Your task to perform on an android device: Go to ESPN.com Image 0: 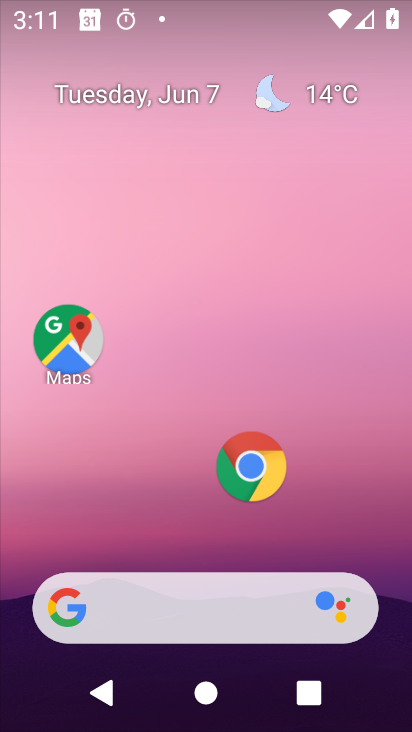
Step 0: click (243, 484)
Your task to perform on an android device: Go to ESPN.com Image 1: 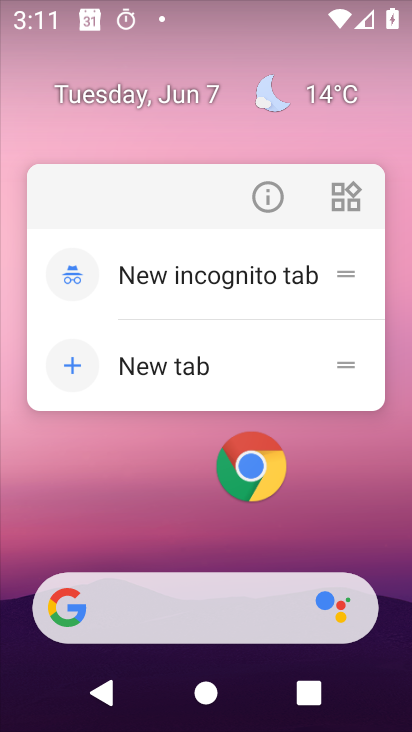
Step 1: click (244, 479)
Your task to perform on an android device: Go to ESPN.com Image 2: 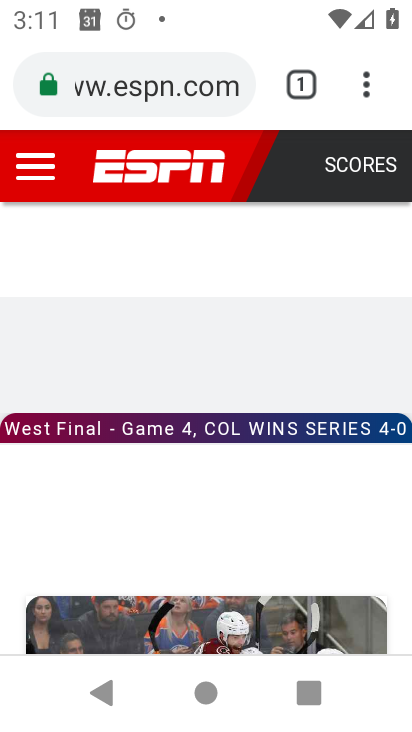
Step 2: task complete